Your task to perform on an android device: Go to sound settings Image 0: 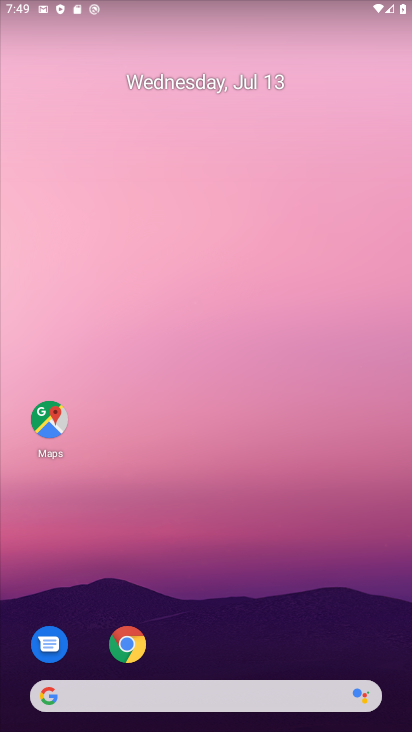
Step 0: drag from (40, 622) to (297, 45)
Your task to perform on an android device: Go to sound settings Image 1: 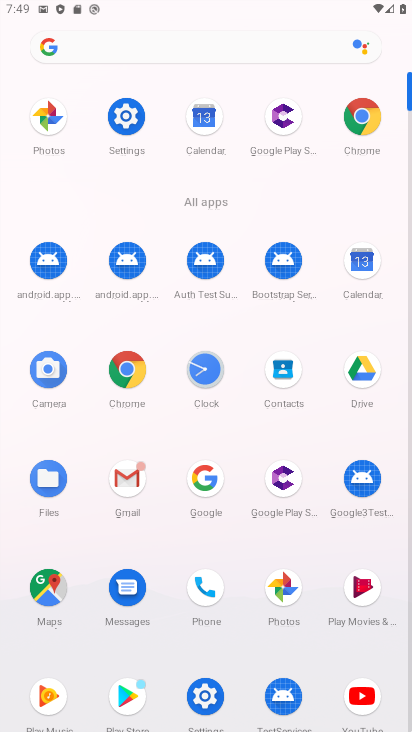
Step 1: click (126, 115)
Your task to perform on an android device: Go to sound settings Image 2: 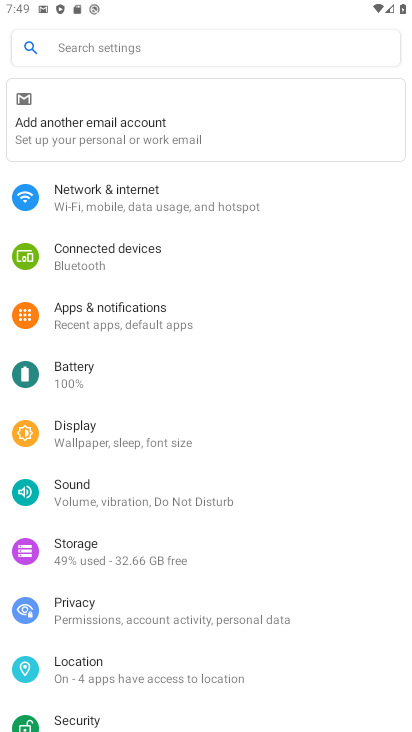
Step 2: click (104, 500)
Your task to perform on an android device: Go to sound settings Image 3: 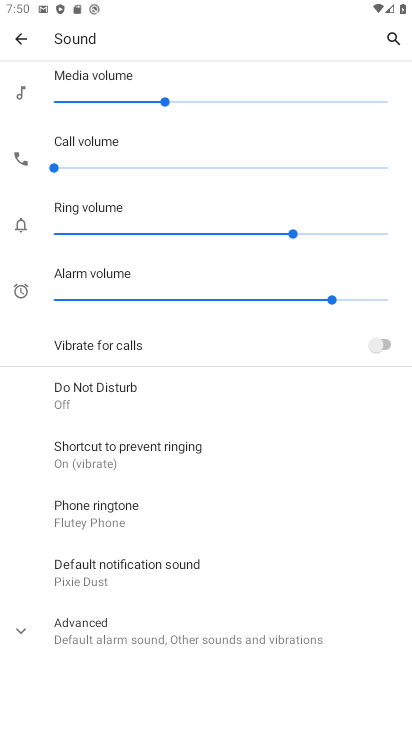
Step 3: task complete